Your task to perform on an android device: toggle notifications settings in the gmail app Image 0: 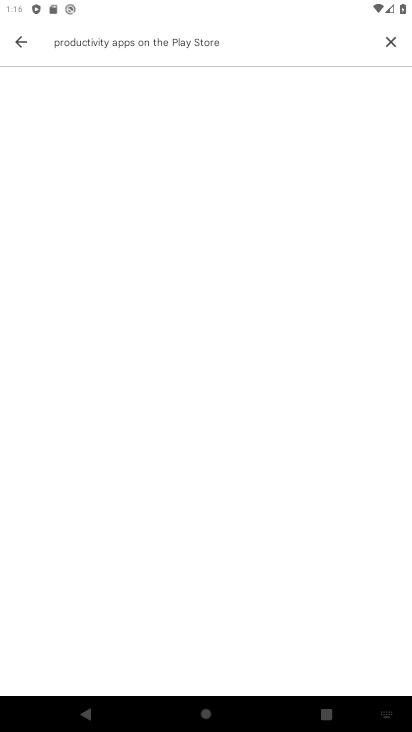
Step 0: press home button
Your task to perform on an android device: toggle notifications settings in the gmail app Image 1: 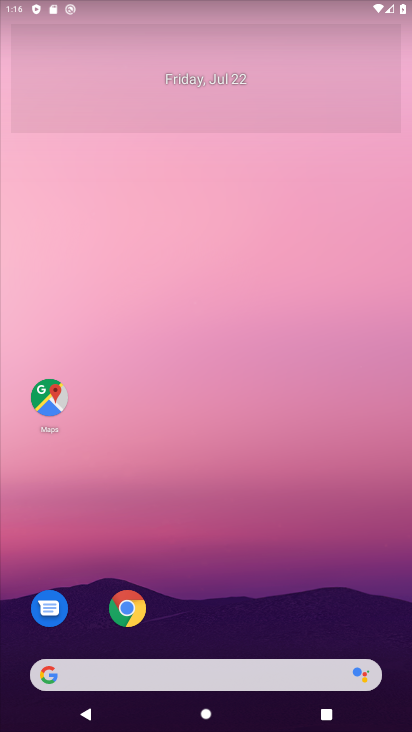
Step 1: drag from (396, 693) to (333, 186)
Your task to perform on an android device: toggle notifications settings in the gmail app Image 2: 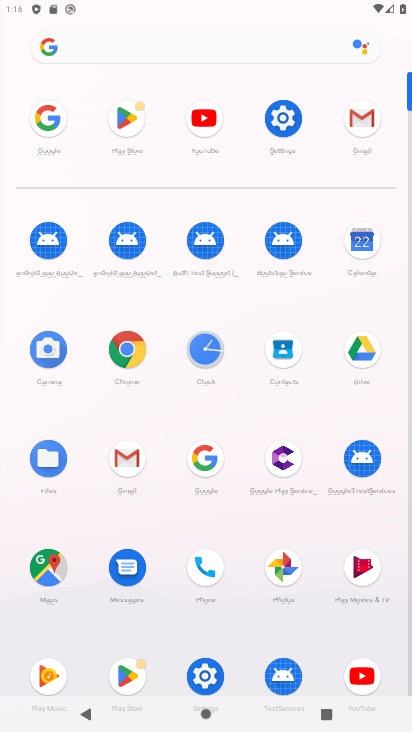
Step 2: click (132, 460)
Your task to perform on an android device: toggle notifications settings in the gmail app Image 3: 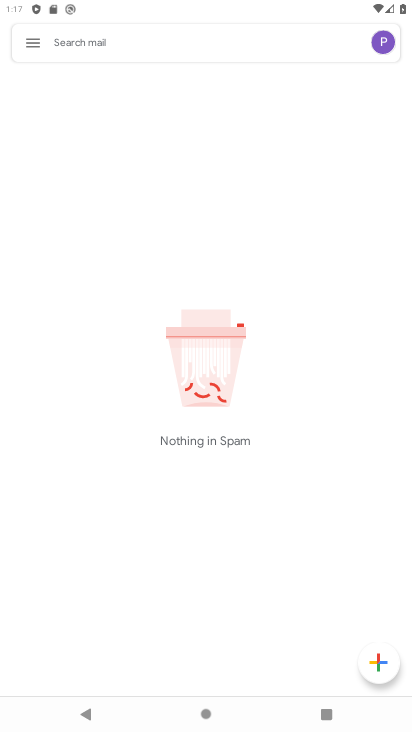
Step 3: click (30, 47)
Your task to perform on an android device: toggle notifications settings in the gmail app Image 4: 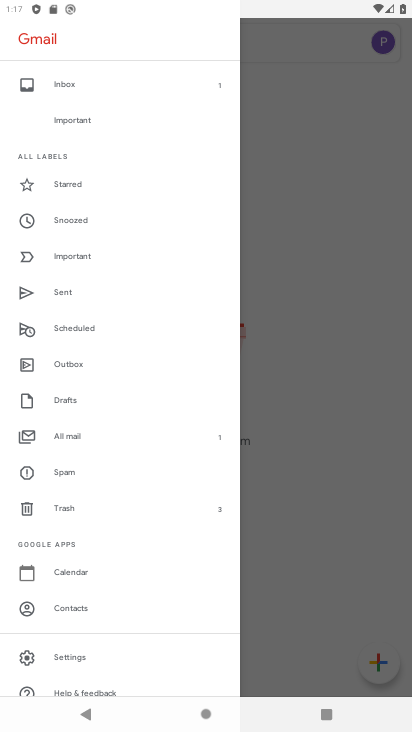
Step 4: click (61, 654)
Your task to perform on an android device: toggle notifications settings in the gmail app Image 5: 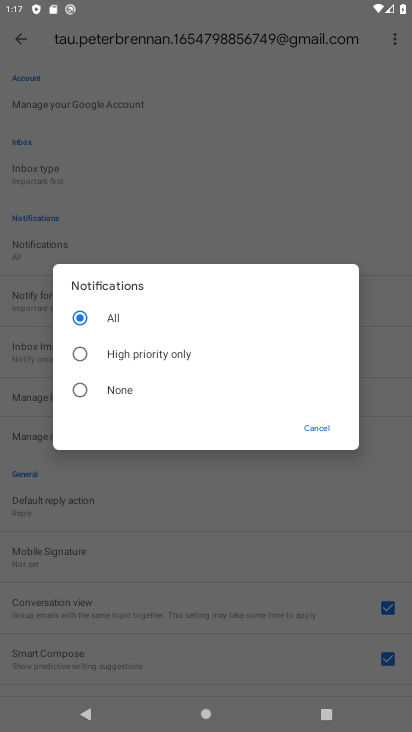
Step 5: click (77, 349)
Your task to perform on an android device: toggle notifications settings in the gmail app Image 6: 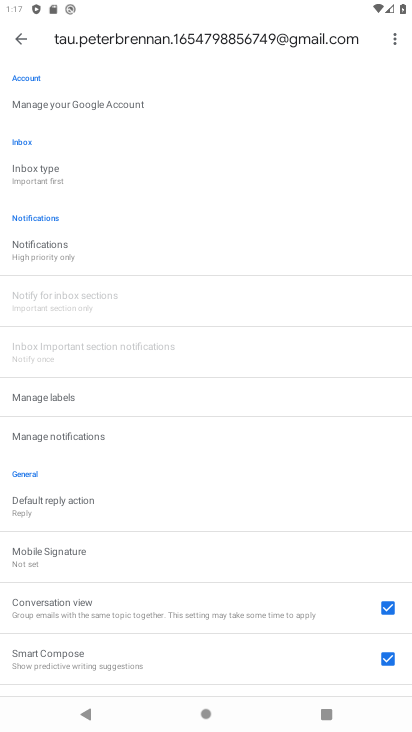
Step 6: task complete